Your task to perform on an android device: clear all cookies in the chrome app Image 0: 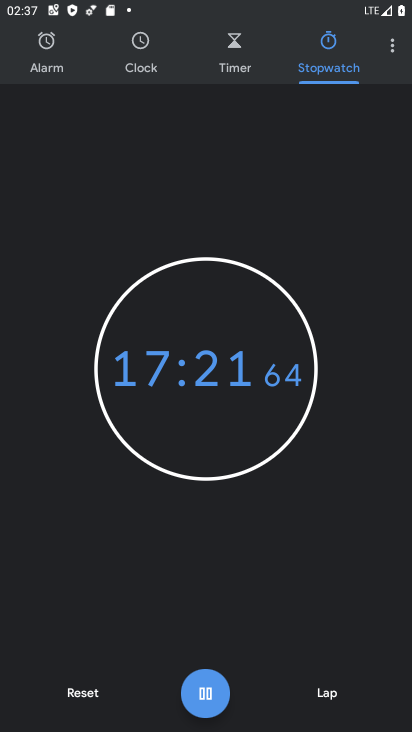
Step 0: press home button
Your task to perform on an android device: clear all cookies in the chrome app Image 1: 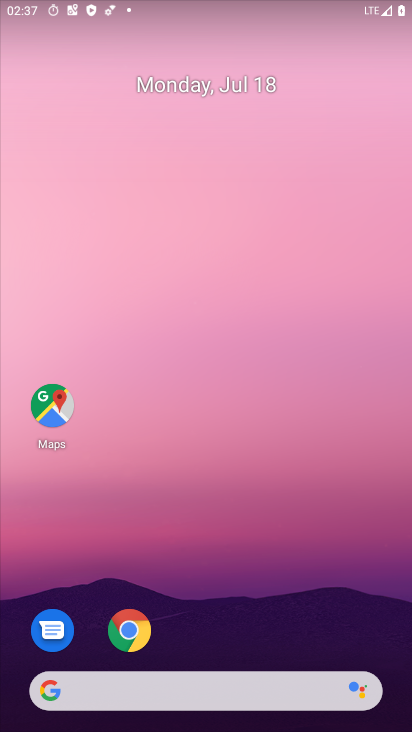
Step 1: click (130, 636)
Your task to perform on an android device: clear all cookies in the chrome app Image 2: 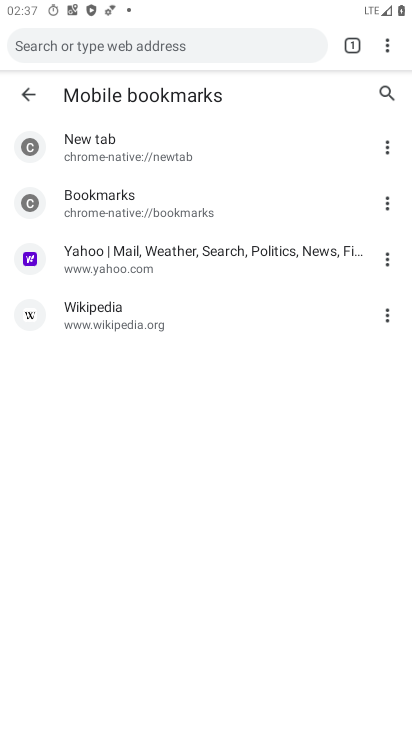
Step 2: click (399, 48)
Your task to perform on an android device: clear all cookies in the chrome app Image 3: 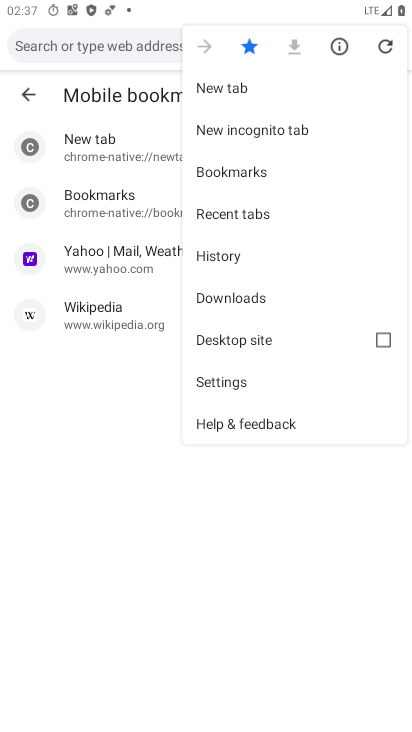
Step 3: click (263, 405)
Your task to perform on an android device: clear all cookies in the chrome app Image 4: 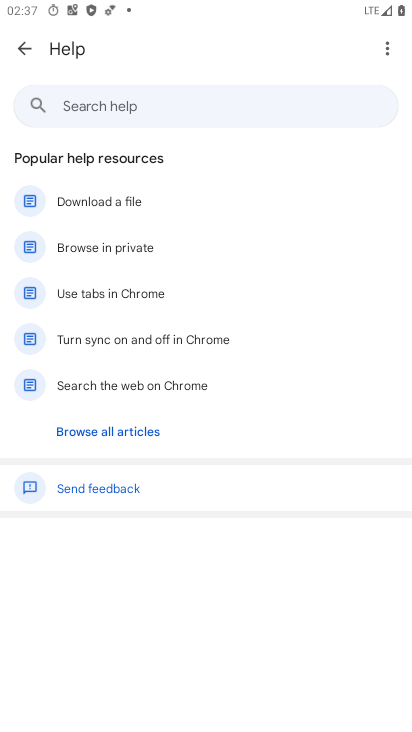
Step 4: click (23, 53)
Your task to perform on an android device: clear all cookies in the chrome app Image 5: 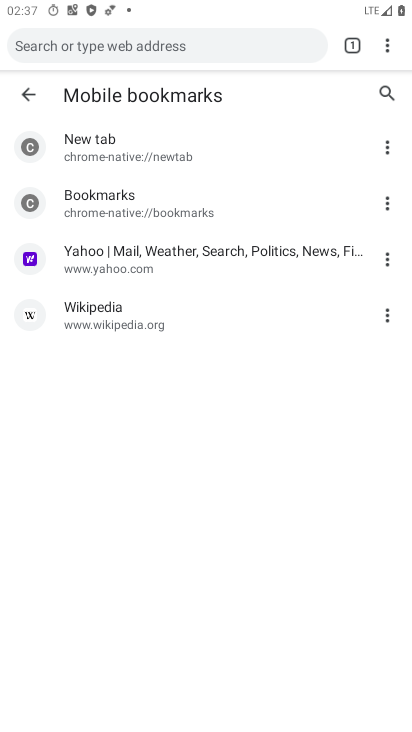
Step 5: click (396, 39)
Your task to perform on an android device: clear all cookies in the chrome app Image 6: 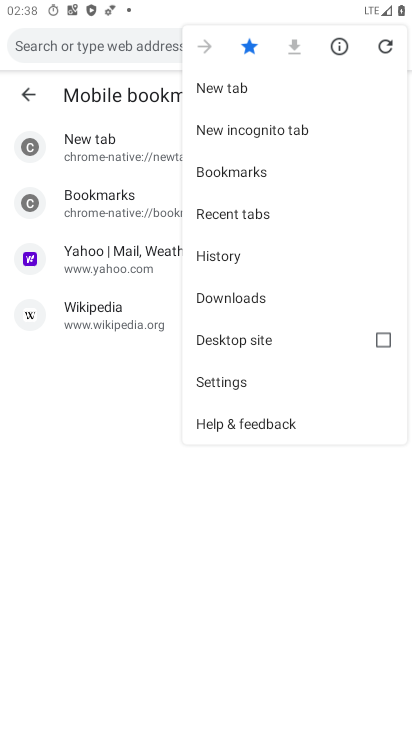
Step 6: click (201, 254)
Your task to perform on an android device: clear all cookies in the chrome app Image 7: 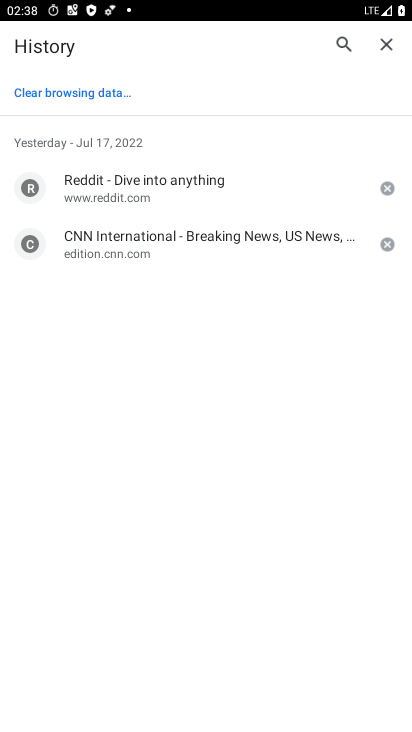
Step 7: click (88, 81)
Your task to perform on an android device: clear all cookies in the chrome app Image 8: 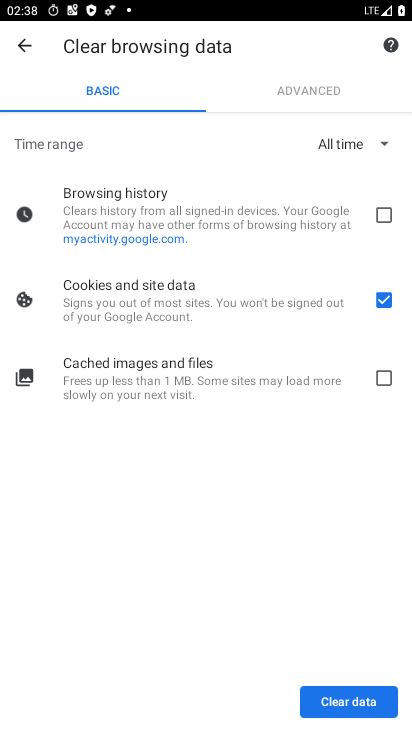
Step 8: click (369, 707)
Your task to perform on an android device: clear all cookies in the chrome app Image 9: 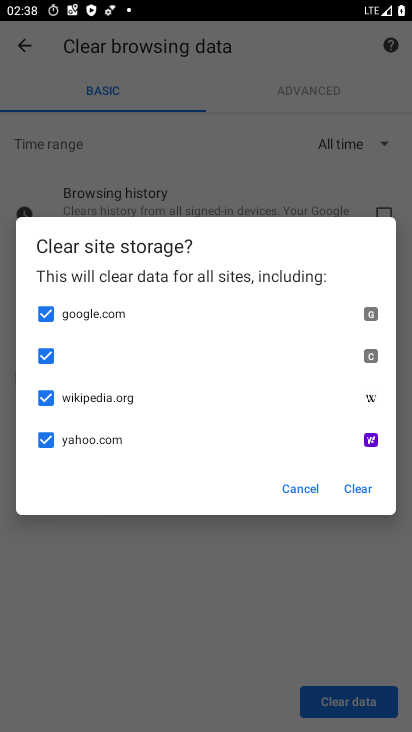
Step 9: click (350, 499)
Your task to perform on an android device: clear all cookies in the chrome app Image 10: 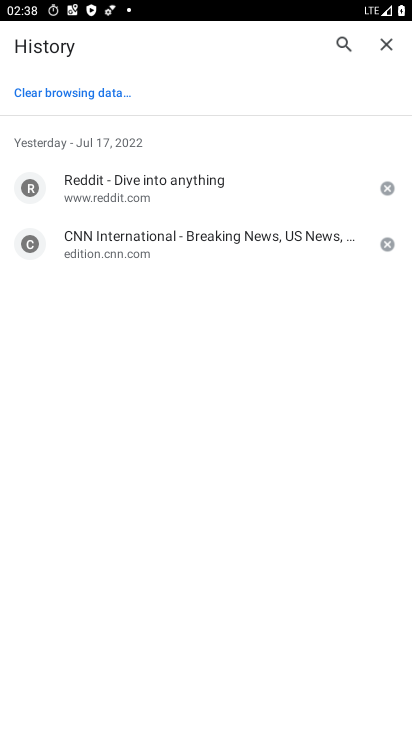
Step 10: task complete